Your task to perform on an android device: uninstall "Google Chat" Image 0: 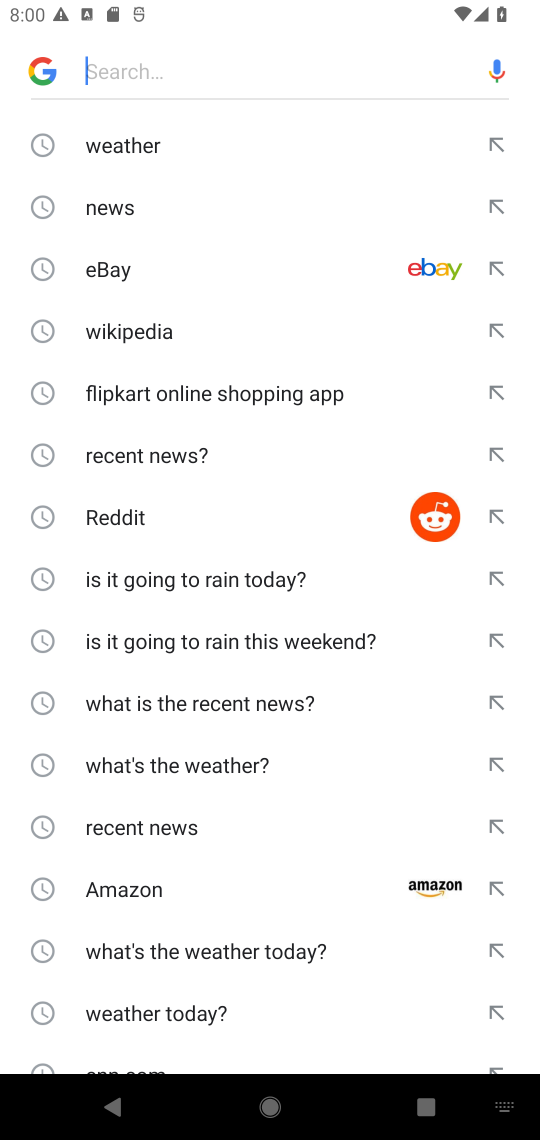
Step 0: press home button
Your task to perform on an android device: uninstall "Google Chat" Image 1: 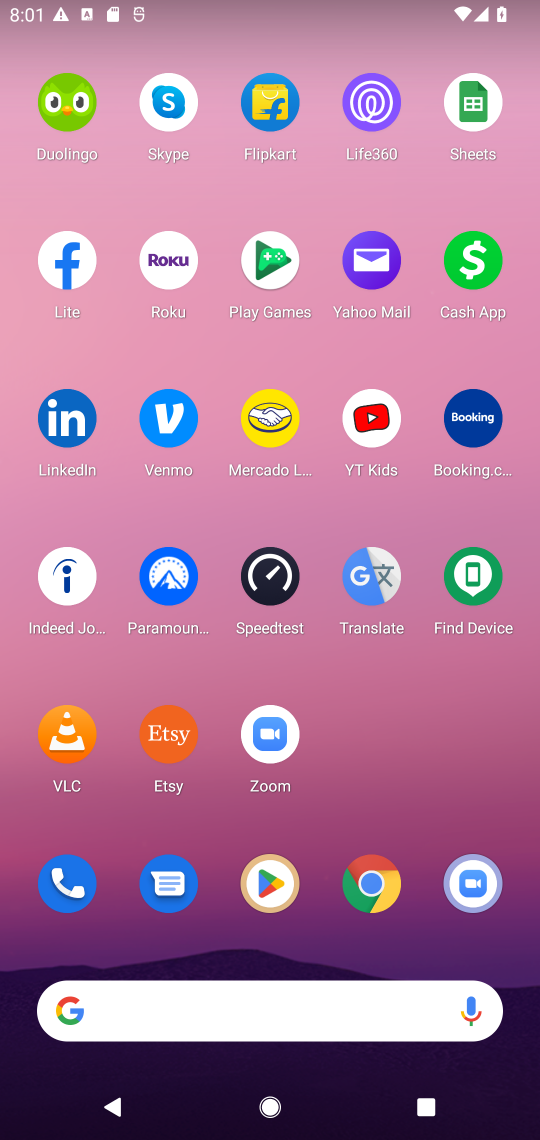
Step 1: click (262, 889)
Your task to perform on an android device: uninstall "Google Chat" Image 2: 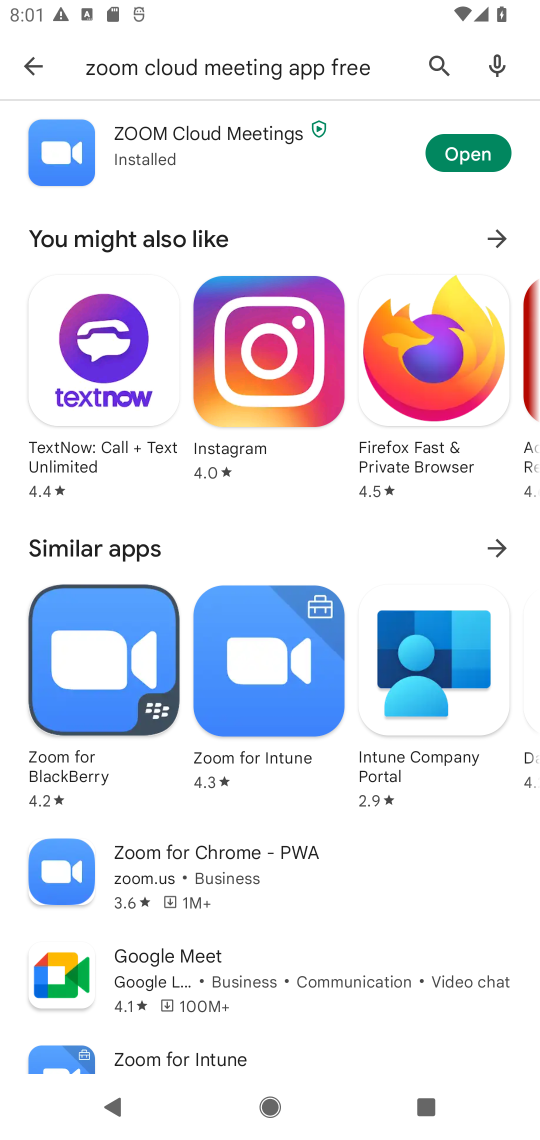
Step 2: click (438, 60)
Your task to perform on an android device: uninstall "Google Chat" Image 3: 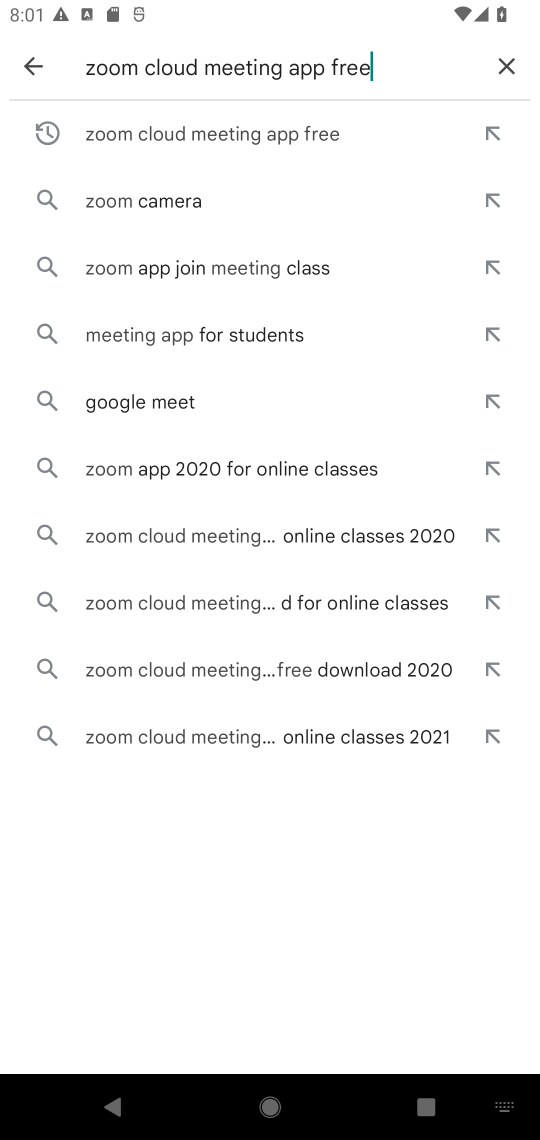
Step 3: click (506, 57)
Your task to perform on an android device: uninstall "Google Chat" Image 4: 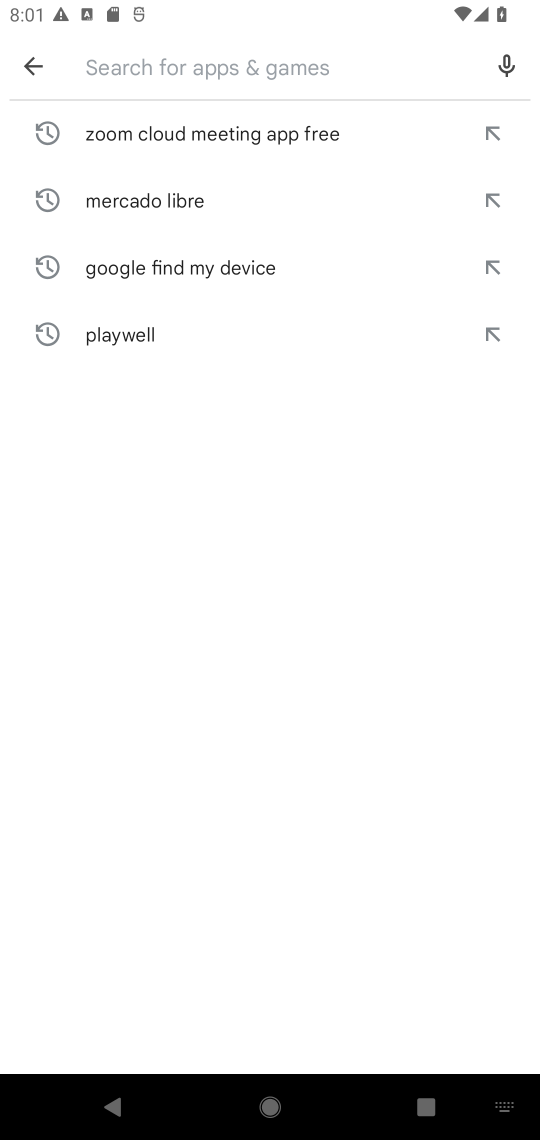
Step 4: type "Google Chat"
Your task to perform on an android device: uninstall "Google Chat" Image 5: 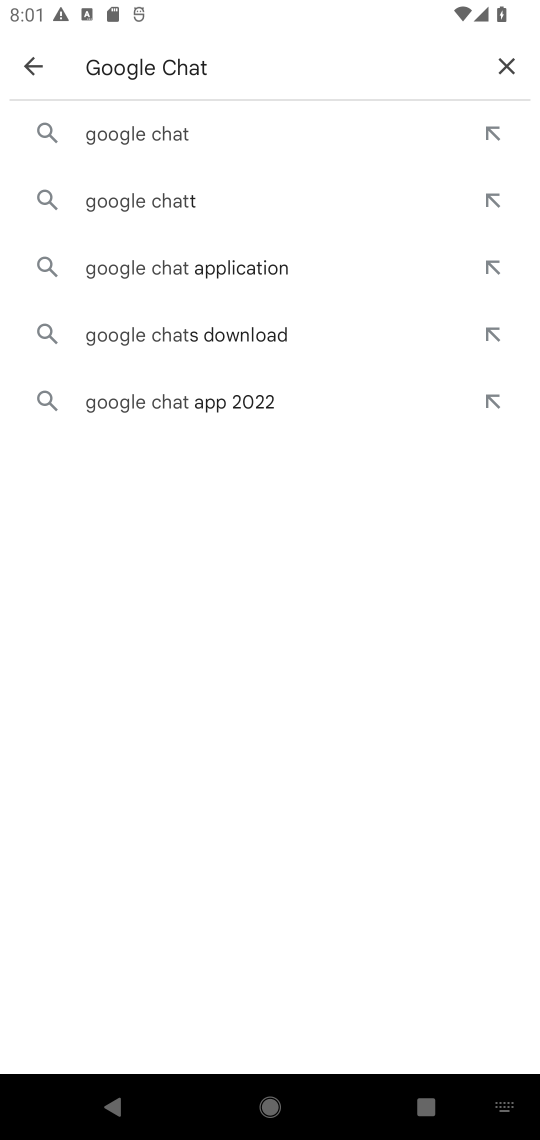
Step 5: click (160, 134)
Your task to perform on an android device: uninstall "Google Chat" Image 6: 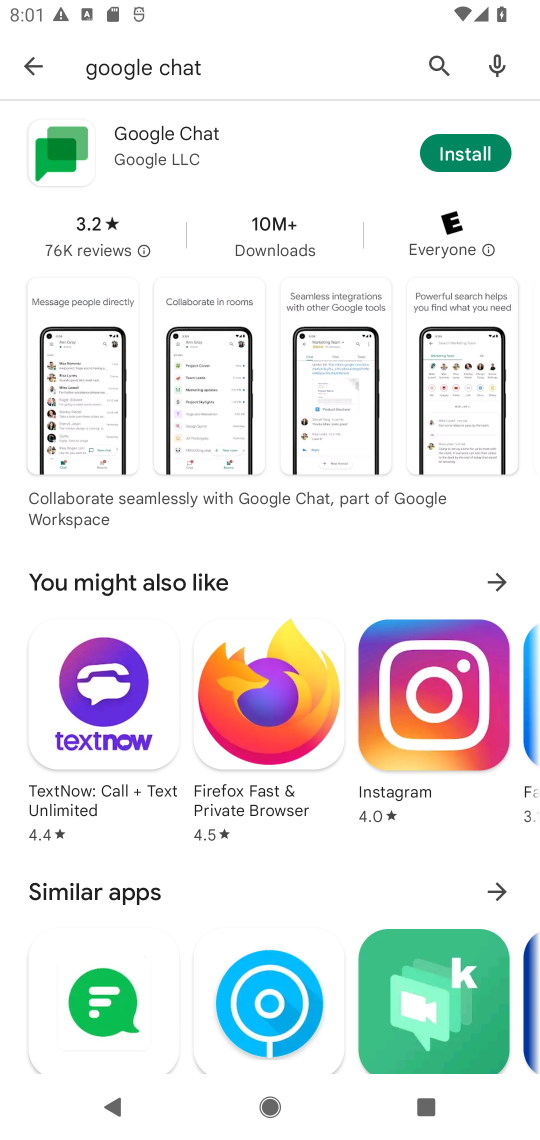
Step 6: task complete